Your task to perform on an android device: Search for Italian restaurants on Maps Image 0: 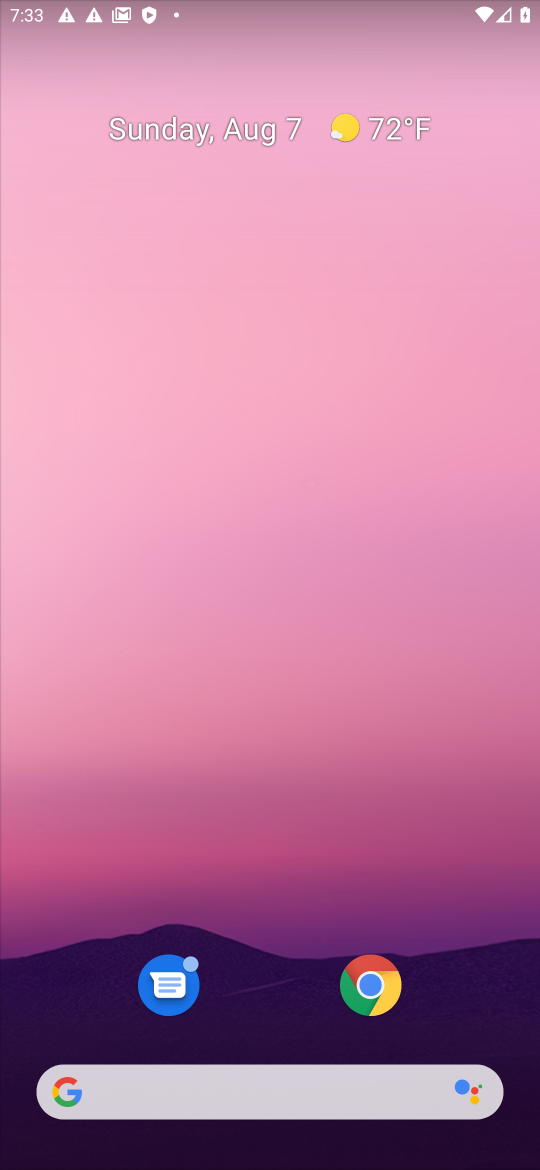
Step 0: drag from (363, 635) to (383, 16)
Your task to perform on an android device: Search for Italian restaurants on Maps Image 1: 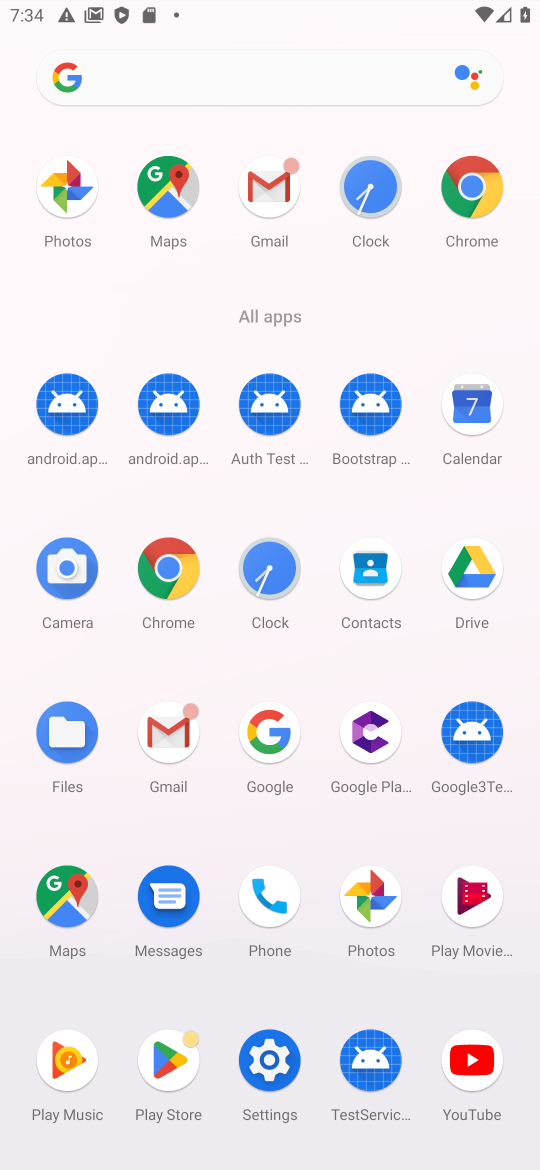
Step 1: click (44, 910)
Your task to perform on an android device: Search for Italian restaurants on Maps Image 2: 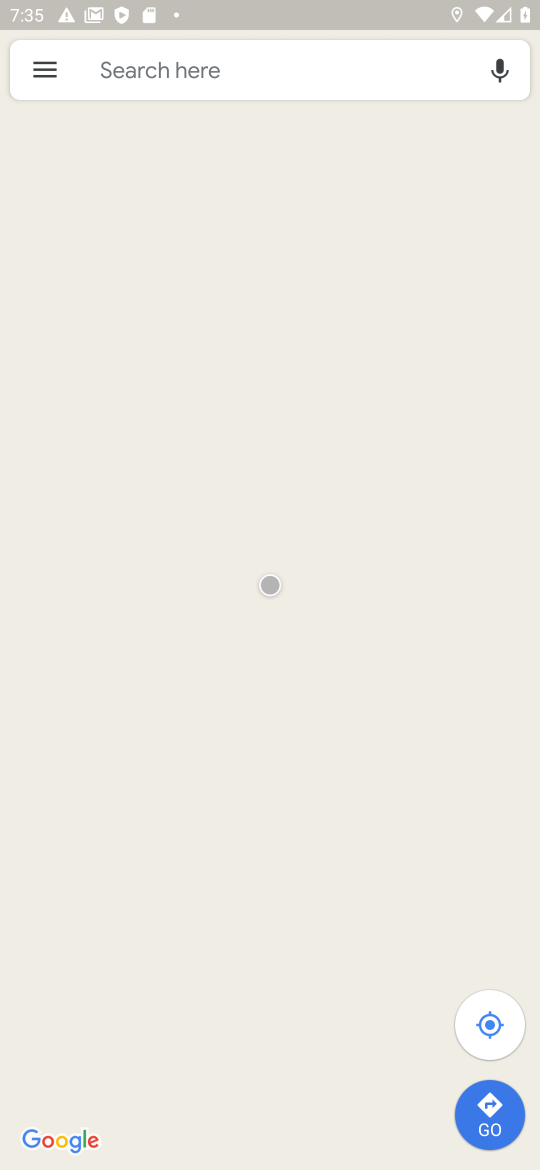
Step 2: click (187, 48)
Your task to perform on an android device: Search for Italian restaurants on Maps Image 3: 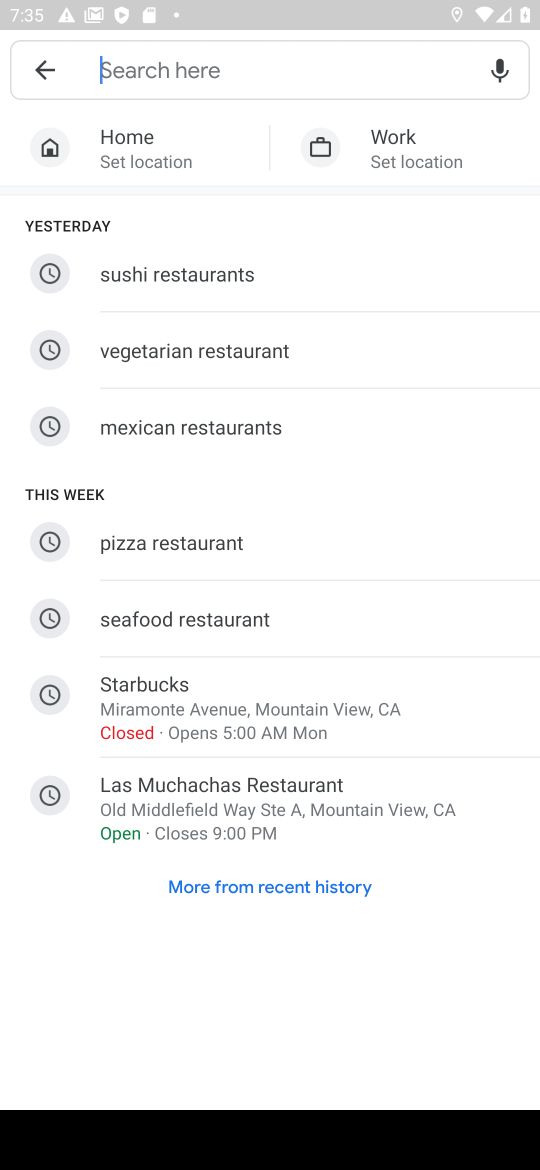
Step 3: click (163, 61)
Your task to perform on an android device: Search for Italian restaurants on Maps Image 4: 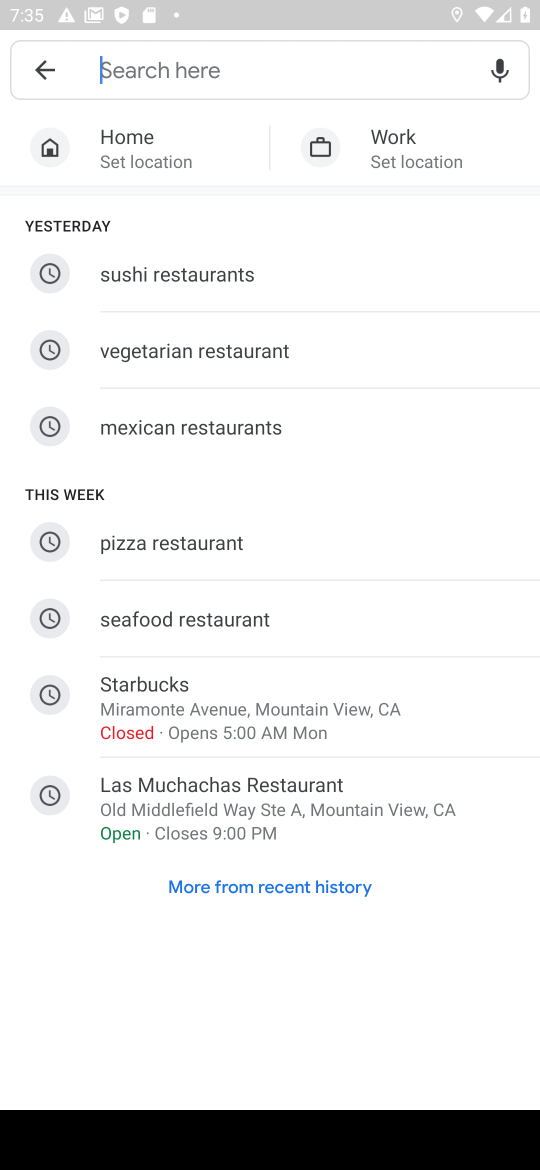
Step 4: type " Italian restaurants  "
Your task to perform on an android device: Search for Italian restaurants on Maps Image 5: 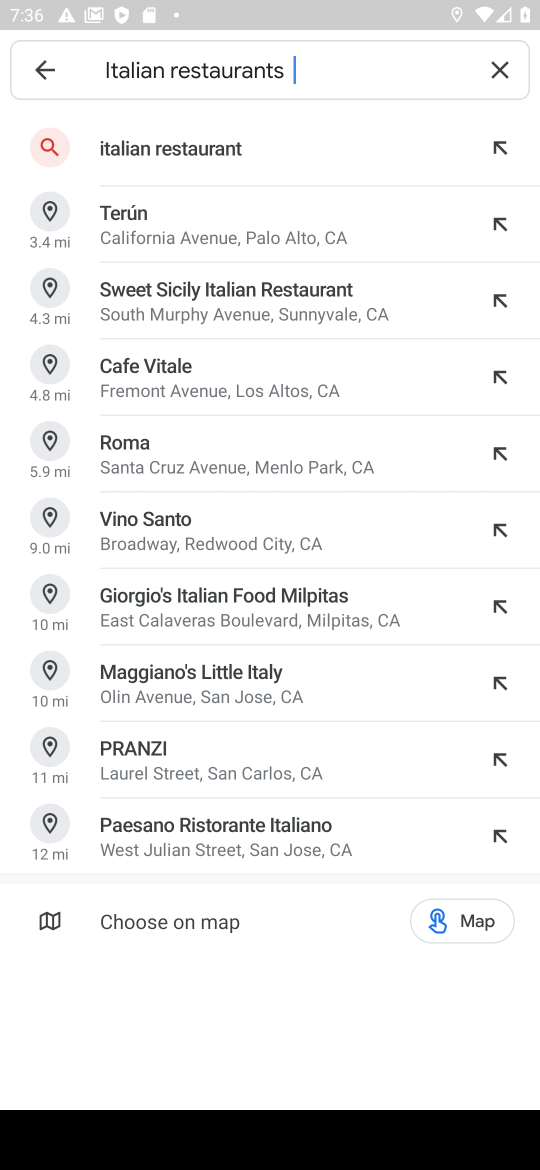
Step 5: click (216, 144)
Your task to perform on an android device: Search for Italian restaurants on Maps Image 6: 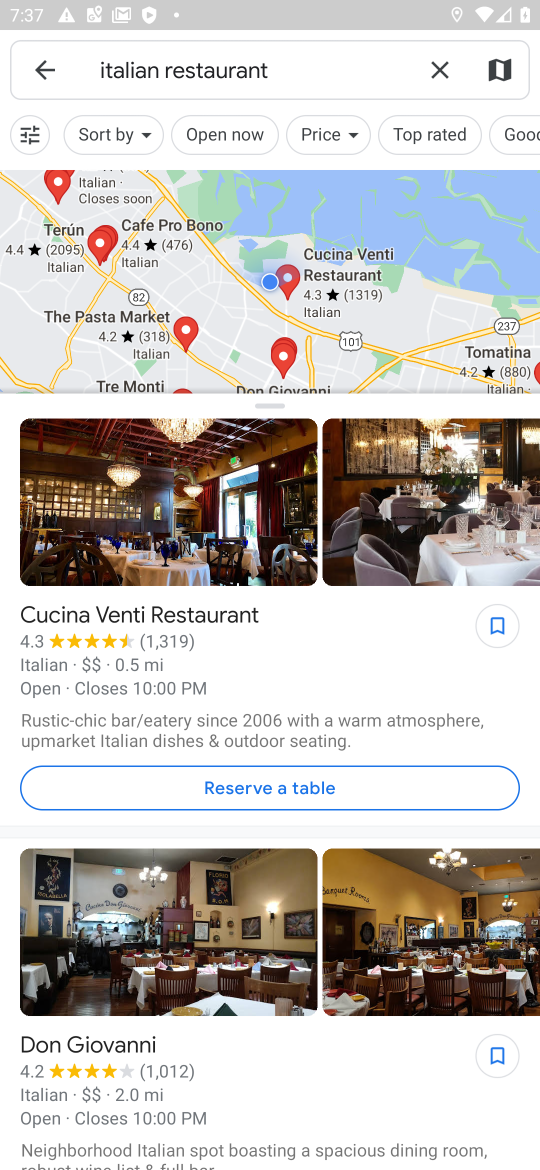
Step 6: task complete